Your task to perform on an android device: move an email to a new category in the gmail app Image 0: 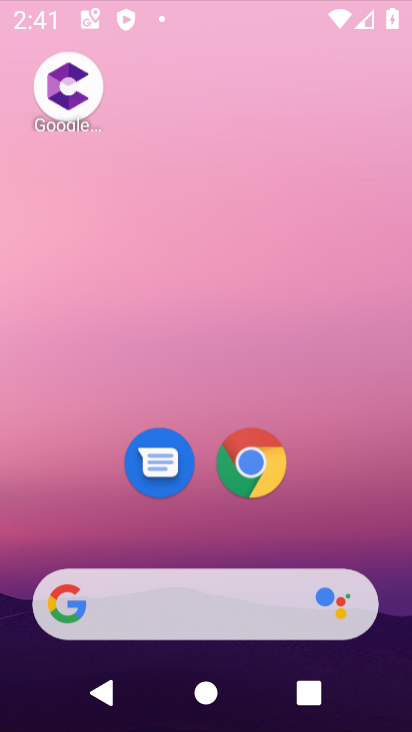
Step 0: drag from (223, 500) to (168, 140)
Your task to perform on an android device: move an email to a new category in the gmail app Image 1: 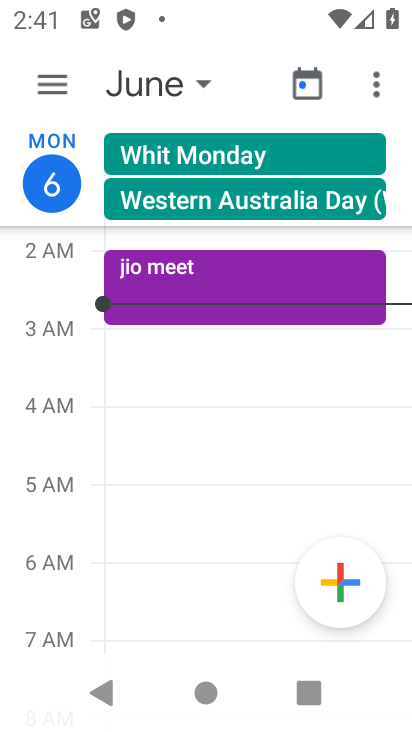
Step 1: press back button
Your task to perform on an android device: move an email to a new category in the gmail app Image 2: 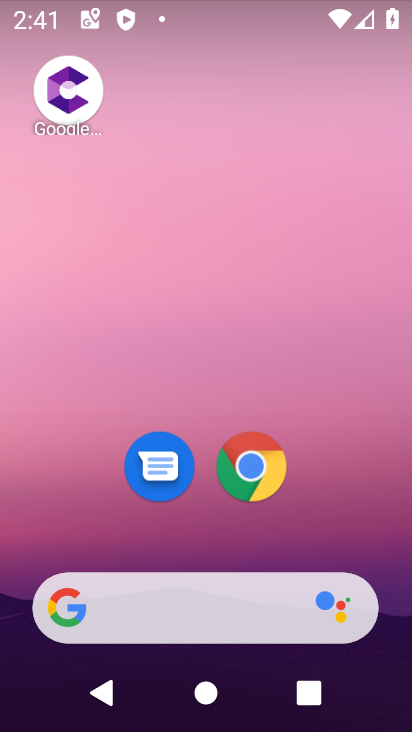
Step 2: drag from (146, 400) to (98, 50)
Your task to perform on an android device: move an email to a new category in the gmail app Image 3: 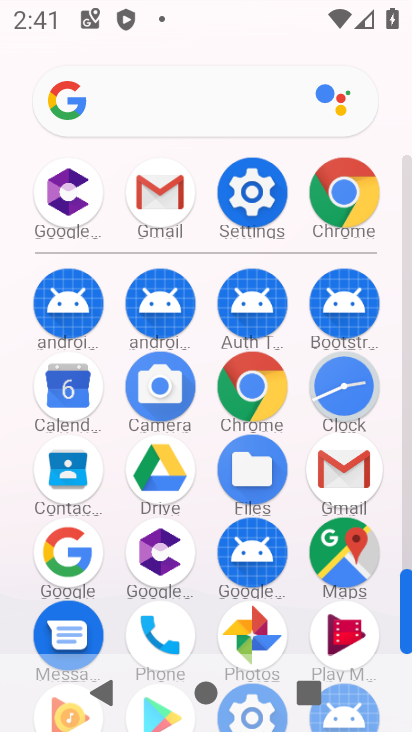
Step 3: click (343, 458)
Your task to perform on an android device: move an email to a new category in the gmail app Image 4: 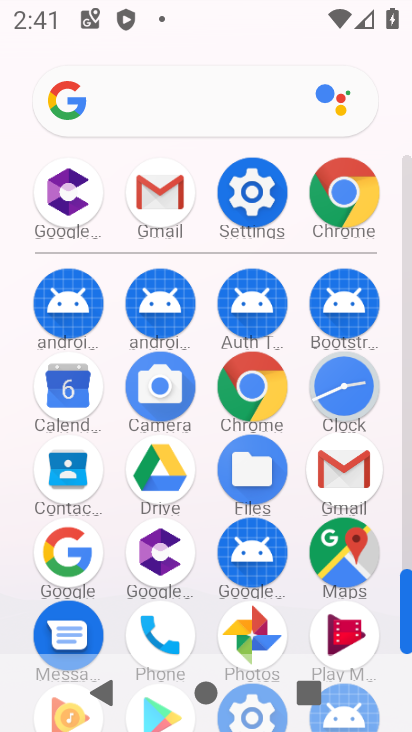
Step 4: click (344, 456)
Your task to perform on an android device: move an email to a new category in the gmail app Image 5: 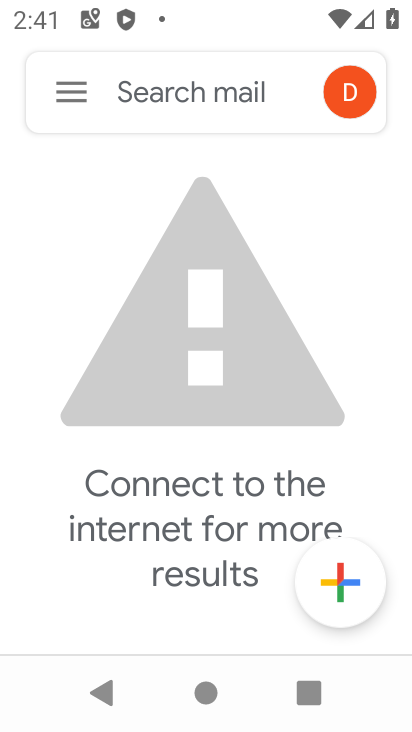
Step 5: drag from (58, 89) to (108, 293)
Your task to perform on an android device: move an email to a new category in the gmail app Image 6: 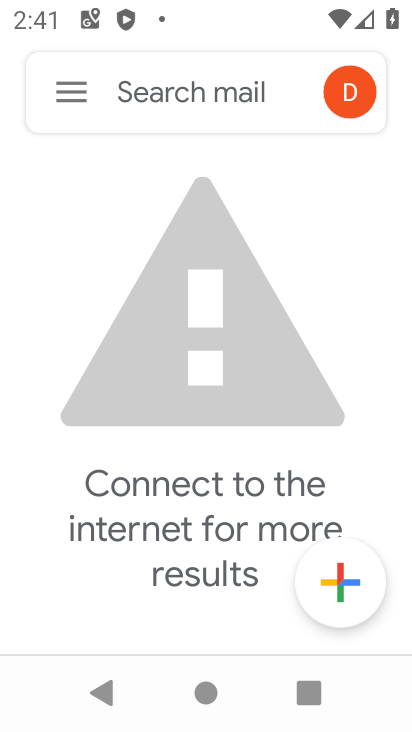
Step 6: drag from (80, 103) to (87, 354)
Your task to perform on an android device: move an email to a new category in the gmail app Image 7: 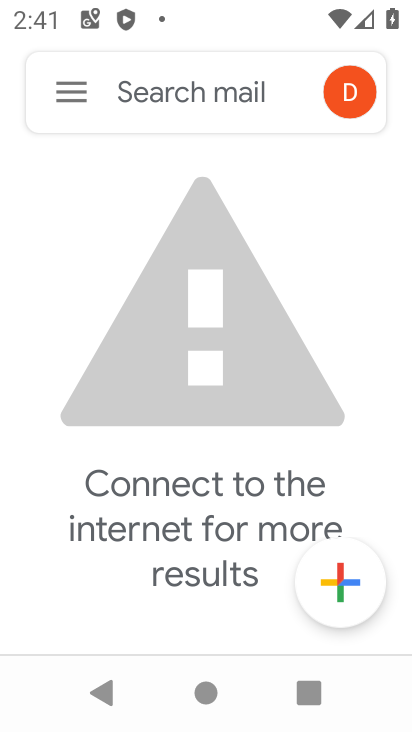
Step 7: click (70, 117)
Your task to perform on an android device: move an email to a new category in the gmail app Image 8: 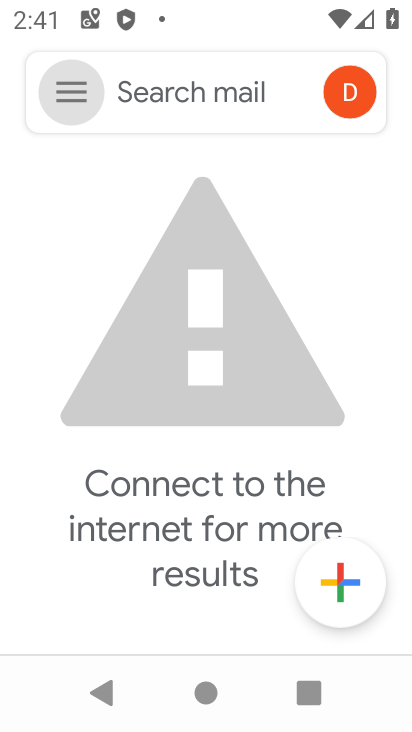
Step 8: click (68, 108)
Your task to perform on an android device: move an email to a new category in the gmail app Image 9: 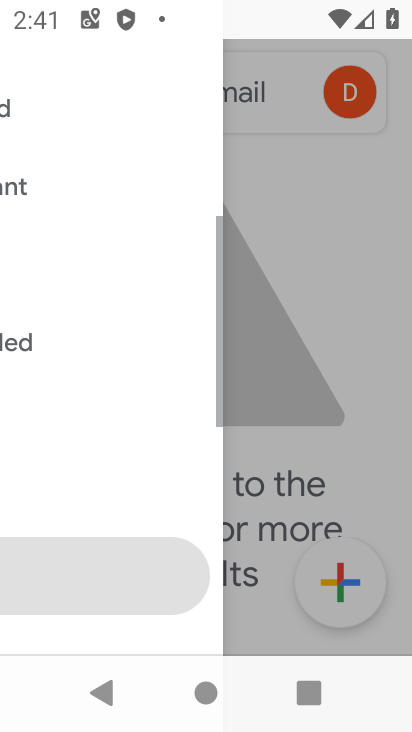
Step 9: drag from (68, 108) to (138, 575)
Your task to perform on an android device: move an email to a new category in the gmail app Image 10: 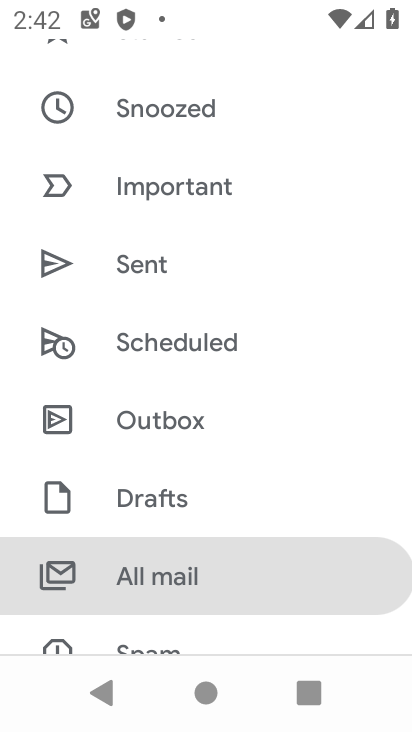
Step 10: click (144, 574)
Your task to perform on an android device: move an email to a new category in the gmail app Image 11: 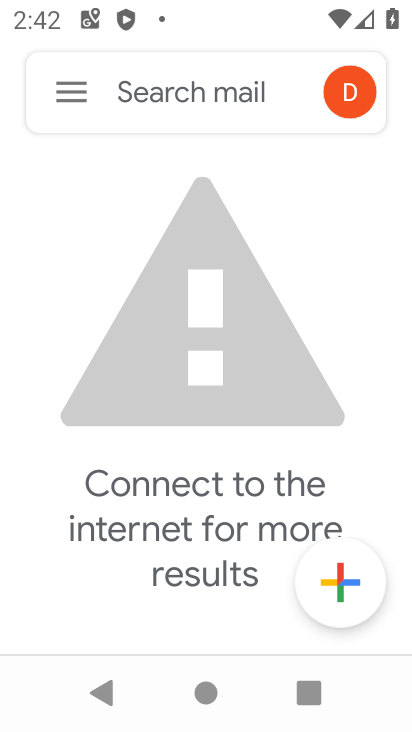
Step 11: task complete